Your task to perform on an android device: open device folders in google photos Image 0: 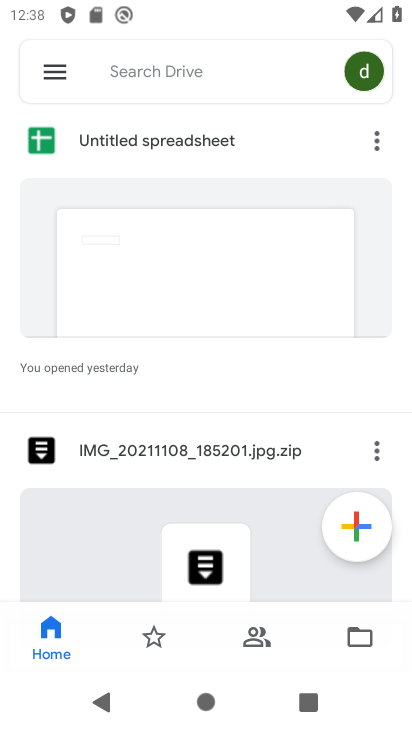
Step 0: press home button
Your task to perform on an android device: open device folders in google photos Image 1: 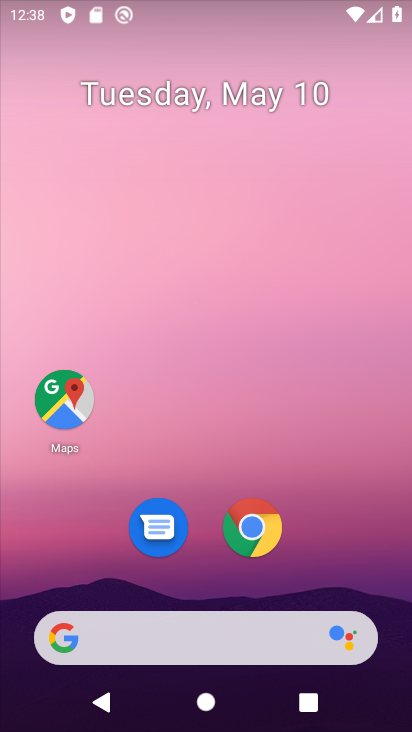
Step 1: drag from (299, 500) to (356, 106)
Your task to perform on an android device: open device folders in google photos Image 2: 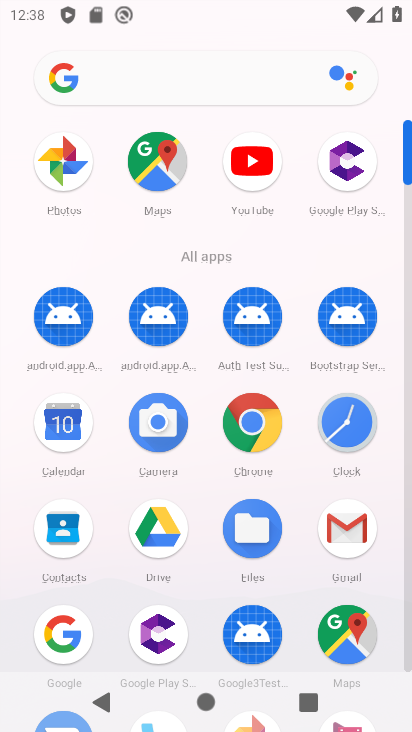
Step 2: drag from (310, 579) to (357, 223)
Your task to perform on an android device: open device folders in google photos Image 3: 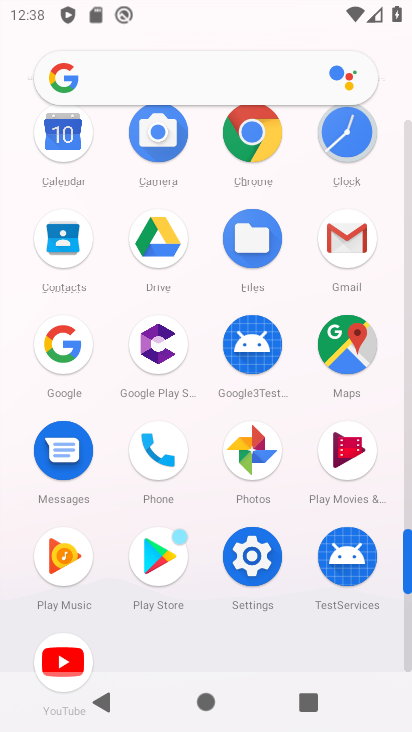
Step 3: click (270, 448)
Your task to perform on an android device: open device folders in google photos Image 4: 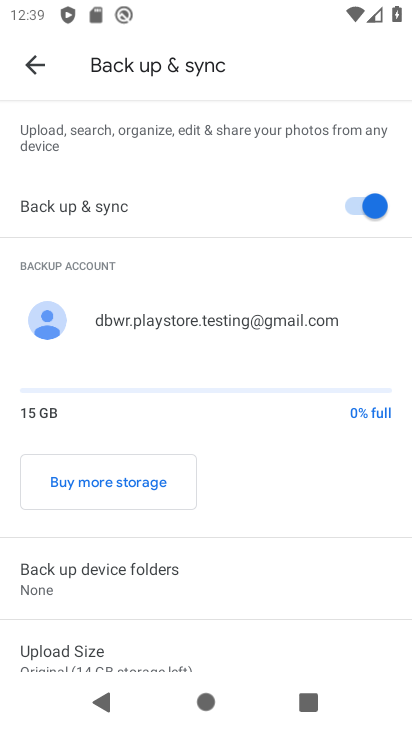
Step 4: press back button
Your task to perform on an android device: open device folders in google photos Image 5: 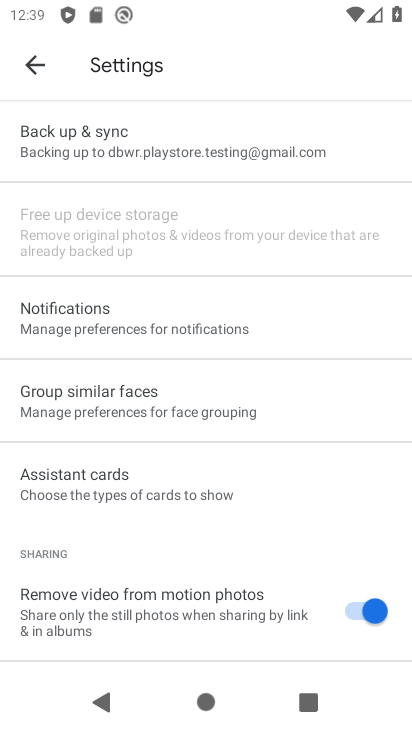
Step 5: press back button
Your task to perform on an android device: open device folders in google photos Image 6: 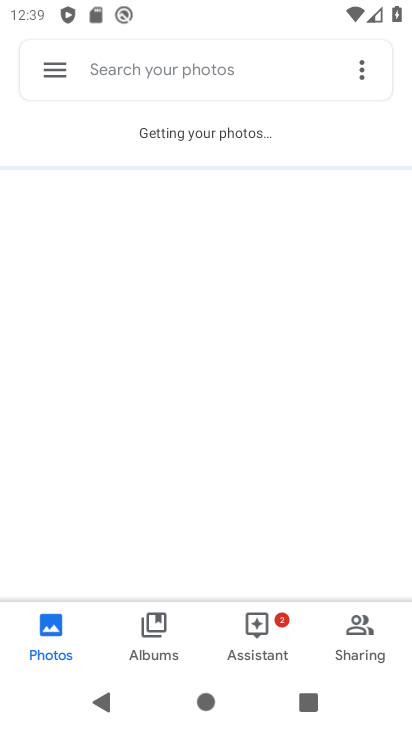
Step 6: click (59, 76)
Your task to perform on an android device: open device folders in google photos Image 7: 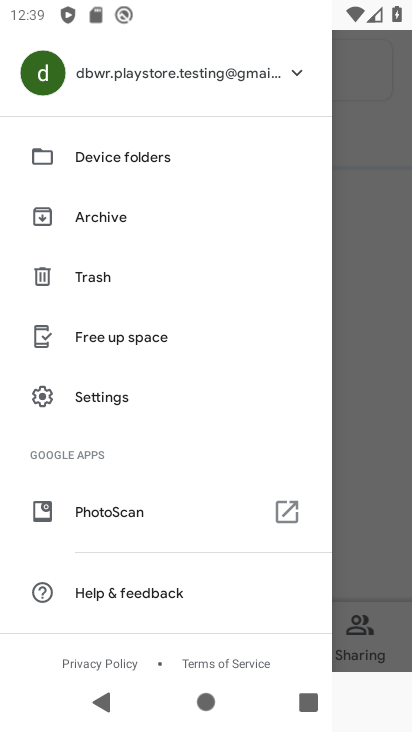
Step 7: click (127, 163)
Your task to perform on an android device: open device folders in google photos Image 8: 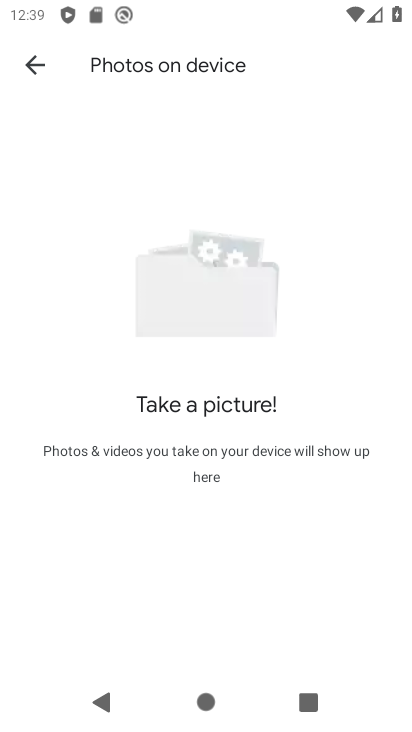
Step 8: task complete